Your task to perform on an android device: toggle improve location accuracy Image 0: 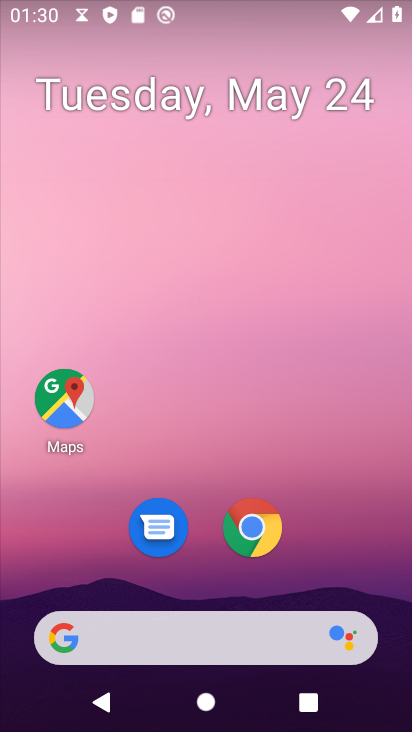
Step 0: press home button
Your task to perform on an android device: toggle improve location accuracy Image 1: 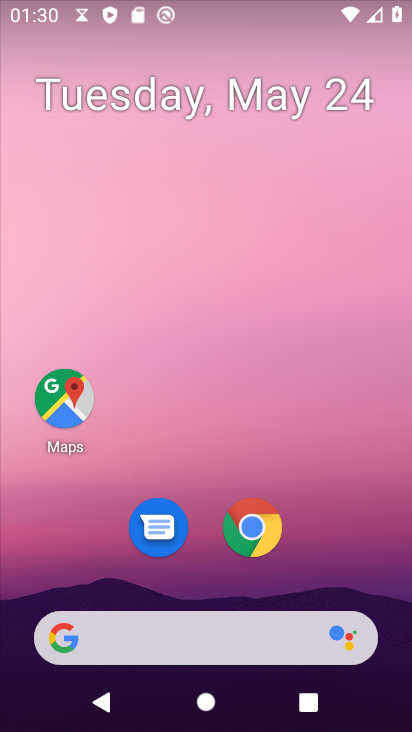
Step 1: drag from (182, 636) to (284, 90)
Your task to perform on an android device: toggle improve location accuracy Image 2: 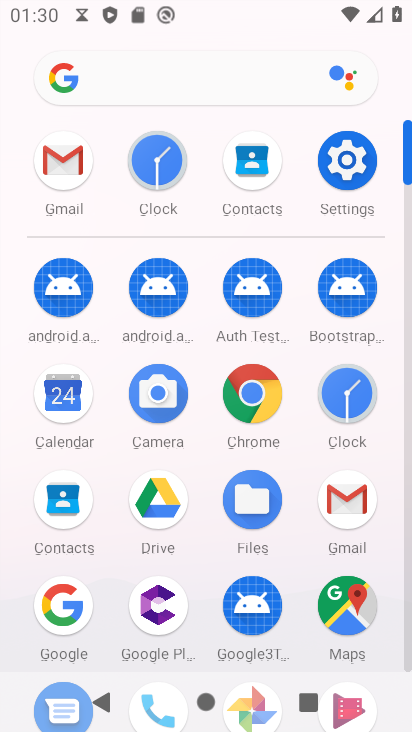
Step 2: click (360, 174)
Your task to perform on an android device: toggle improve location accuracy Image 3: 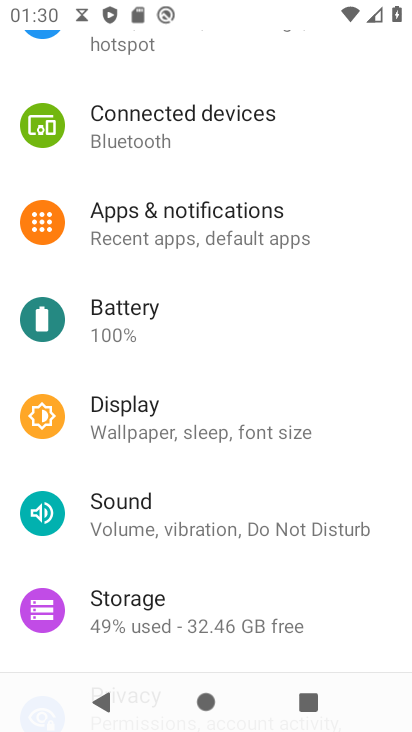
Step 3: drag from (174, 562) to (272, 259)
Your task to perform on an android device: toggle improve location accuracy Image 4: 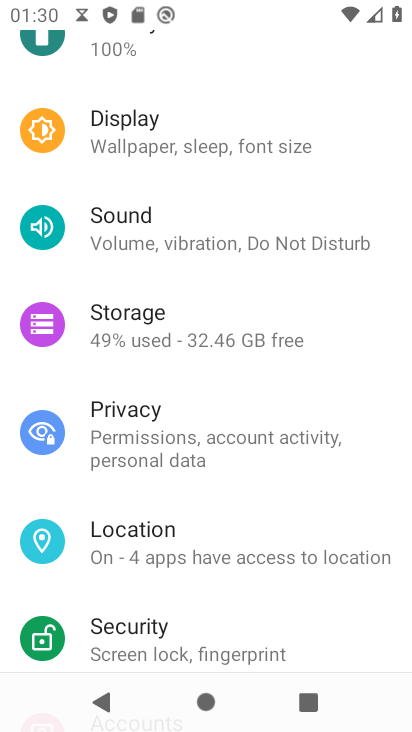
Step 4: drag from (249, 501) to (303, 163)
Your task to perform on an android device: toggle improve location accuracy Image 5: 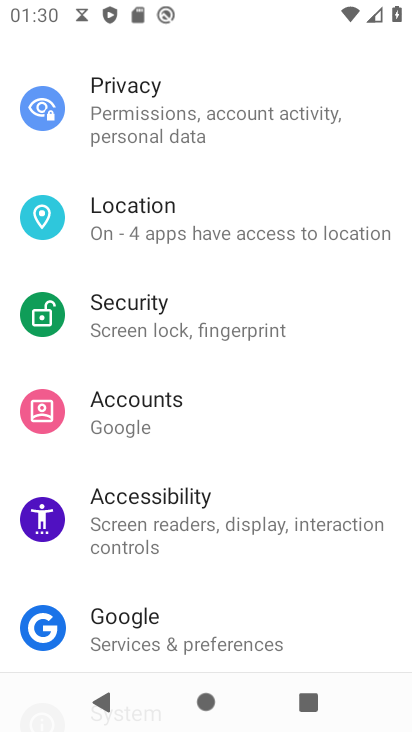
Step 5: click (121, 219)
Your task to perform on an android device: toggle improve location accuracy Image 6: 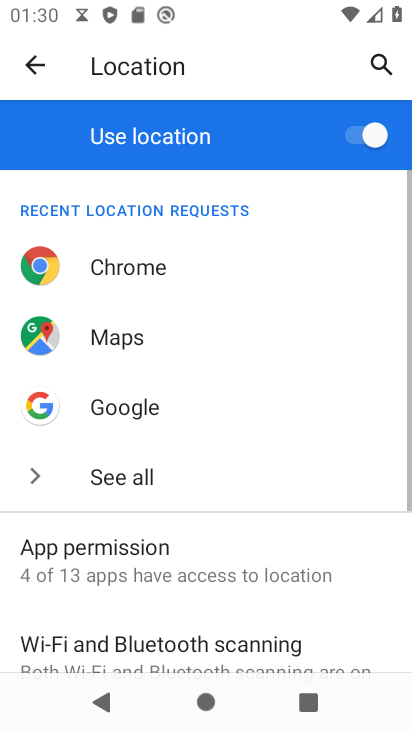
Step 6: drag from (239, 571) to (318, 283)
Your task to perform on an android device: toggle improve location accuracy Image 7: 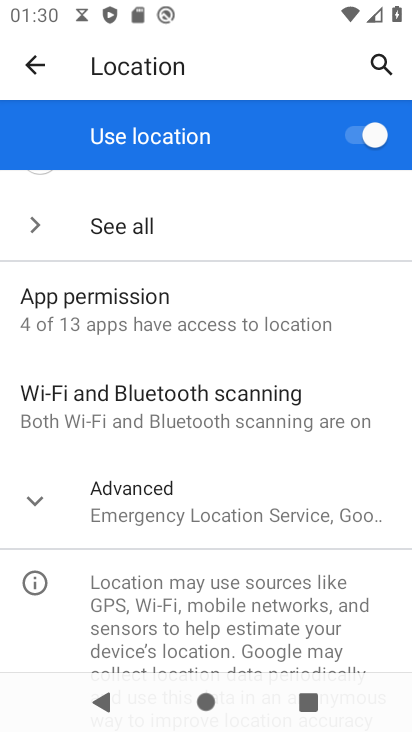
Step 7: click (165, 404)
Your task to perform on an android device: toggle improve location accuracy Image 8: 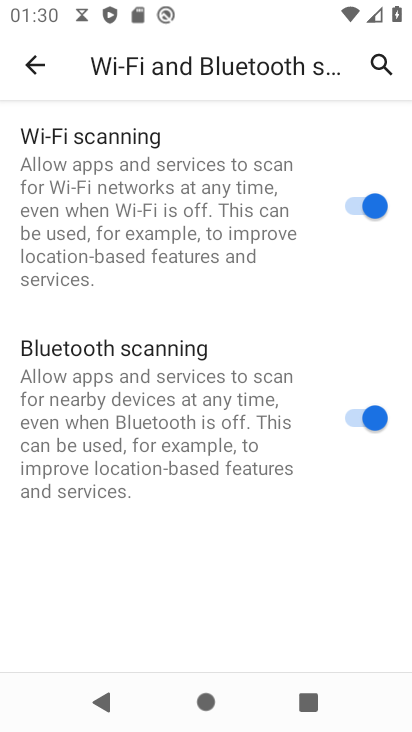
Step 8: click (34, 61)
Your task to perform on an android device: toggle improve location accuracy Image 9: 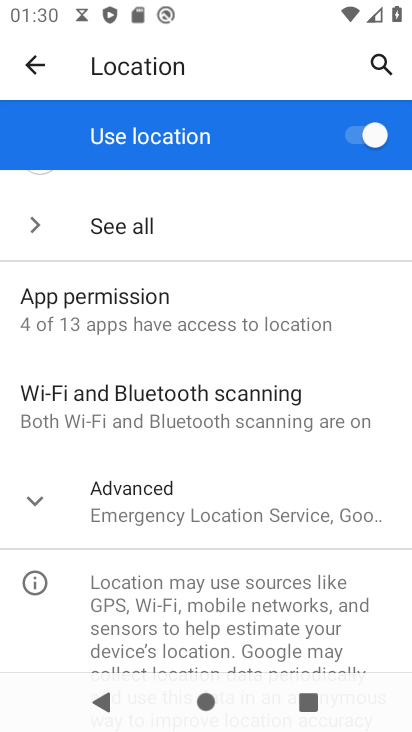
Step 9: click (219, 500)
Your task to perform on an android device: toggle improve location accuracy Image 10: 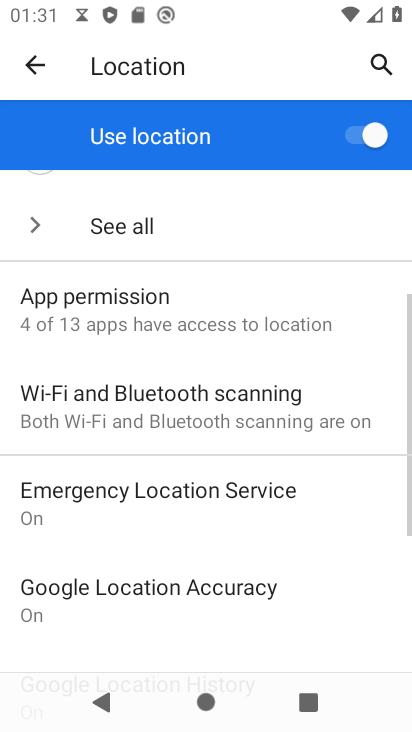
Step 10: drag from (263, 616) to (248, 352)
Your task to perform on an android device: toggle improve location accuracy Image 11: 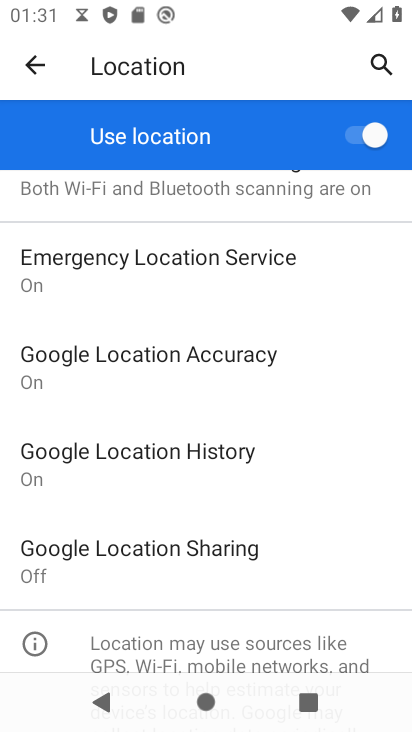
Step 11: click (137, 359)
Your task to perform on an android device: toggle improve location accuracy Image 12: 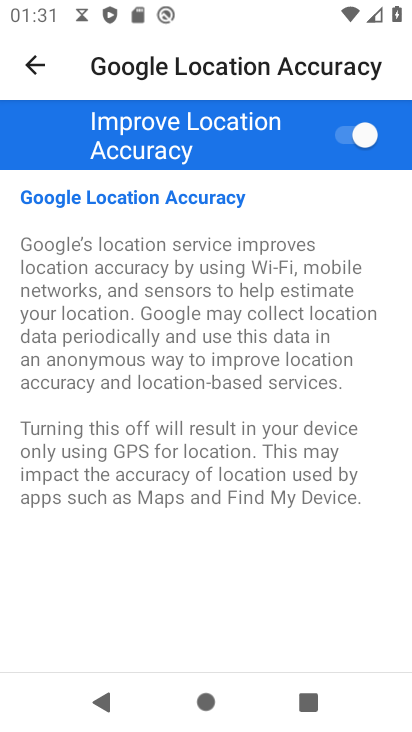
Step 12: click (349, 142)
Your task to perform on an android device: toggle improve location accuracy Image 13: 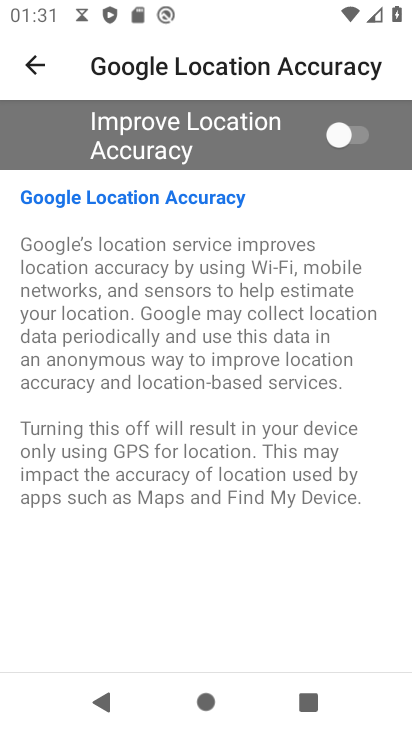
Step 13: task complete